Your task to perform on an android device: open app "DoorDash - Dasher" Image 0: 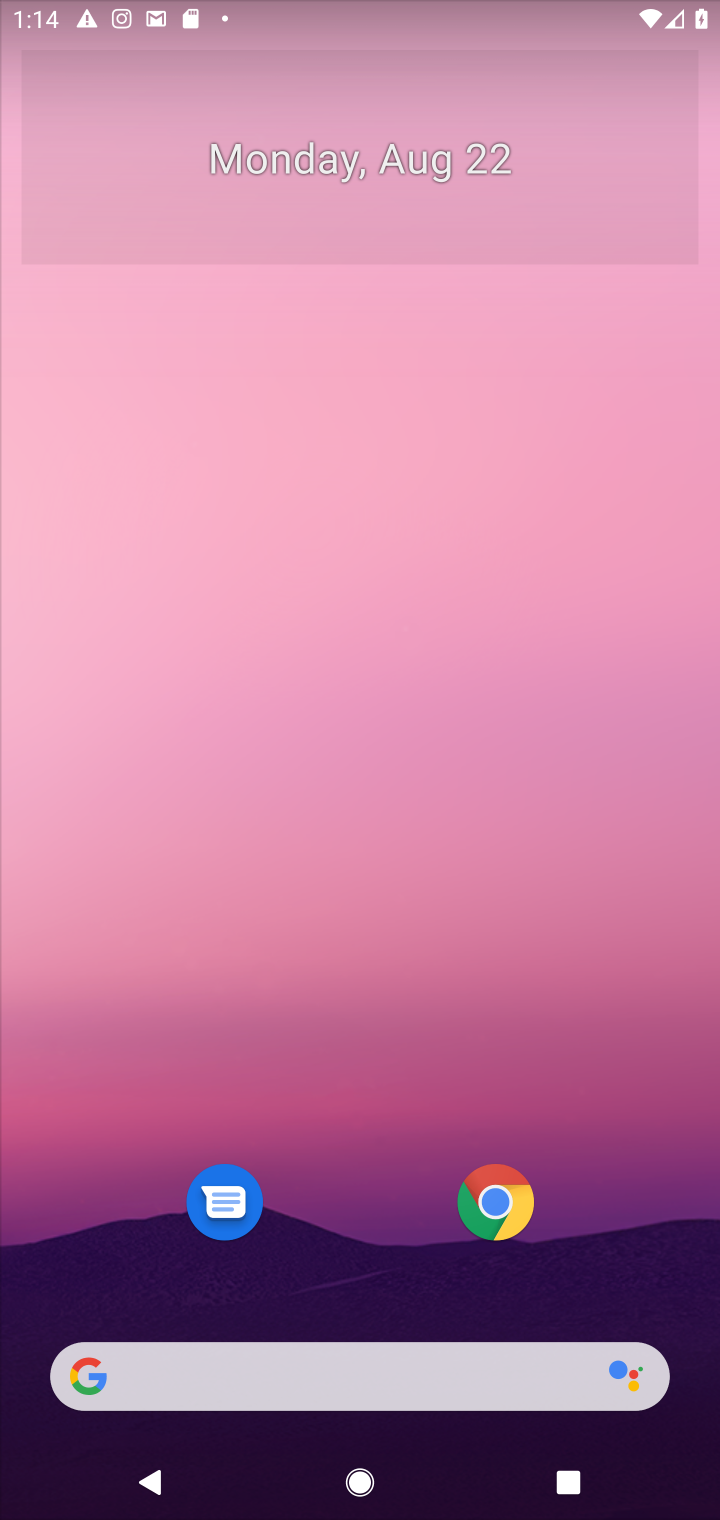
Step 0: drag from (375, 1264) to (375, 203)
Your task to perform on an android device: open app "DoorDash - Dasher" Image 1: 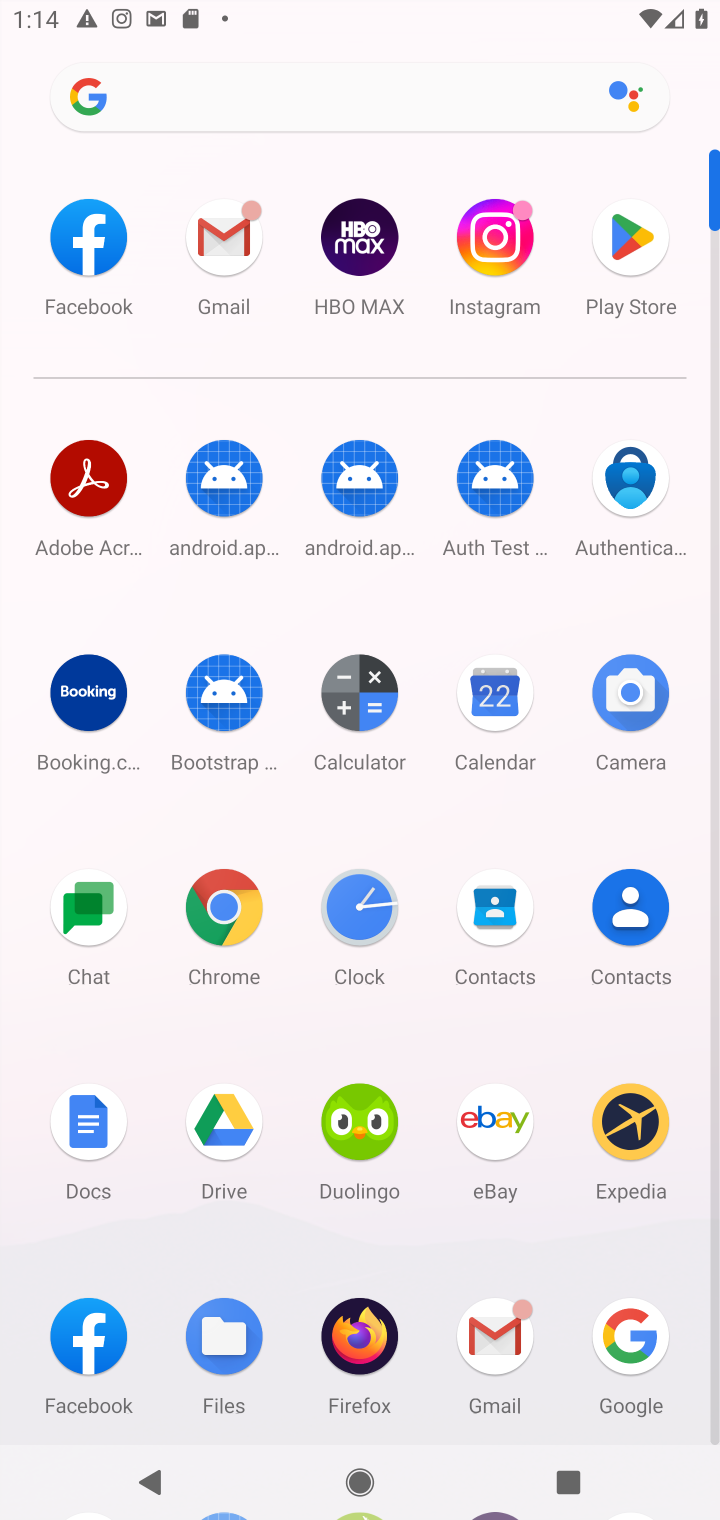
Step 1: click (629, 247)
Your task to perform on an android device: open app "DoorDash - Dasher" Image 2: 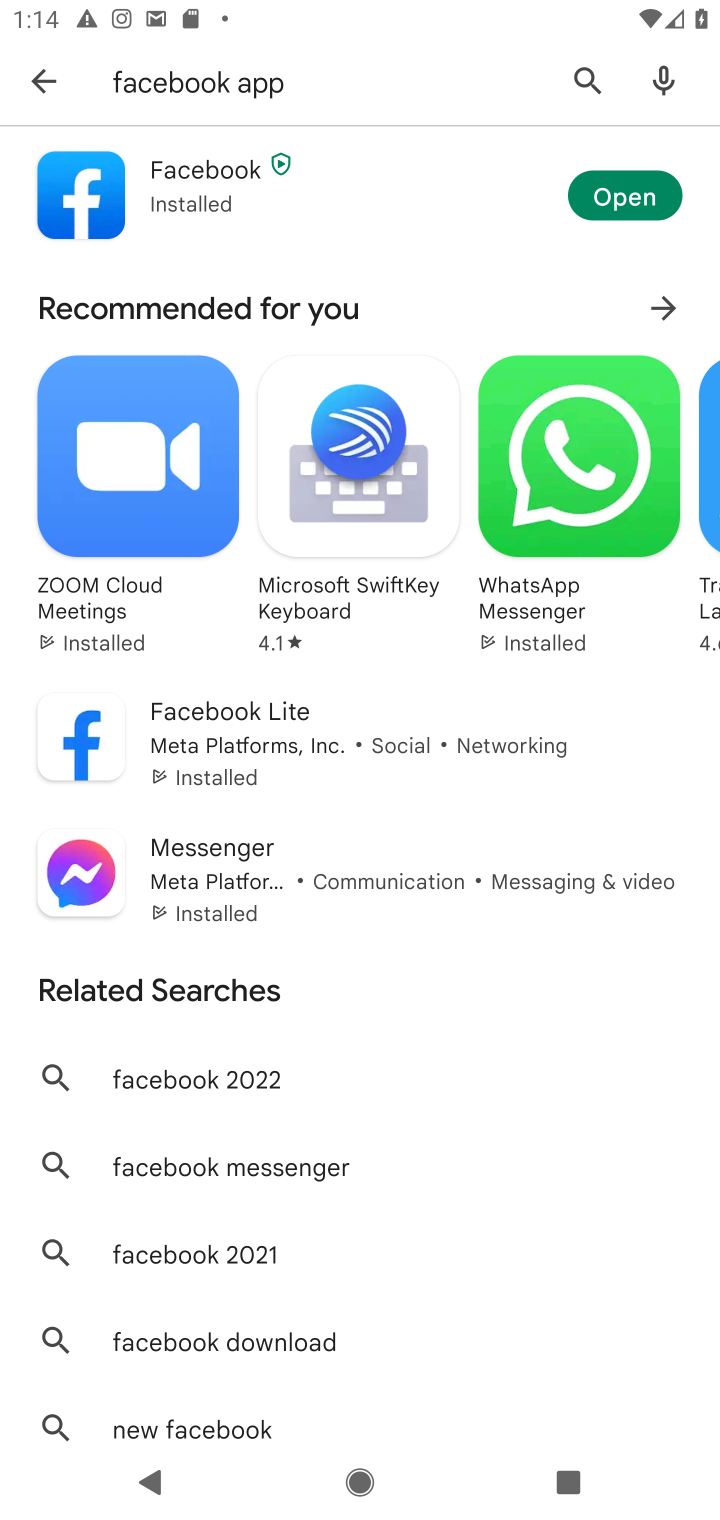
Step 2: click (582, 66)
Your task to perform on an android device: open app "DoorDash - Dasher" Image 3: 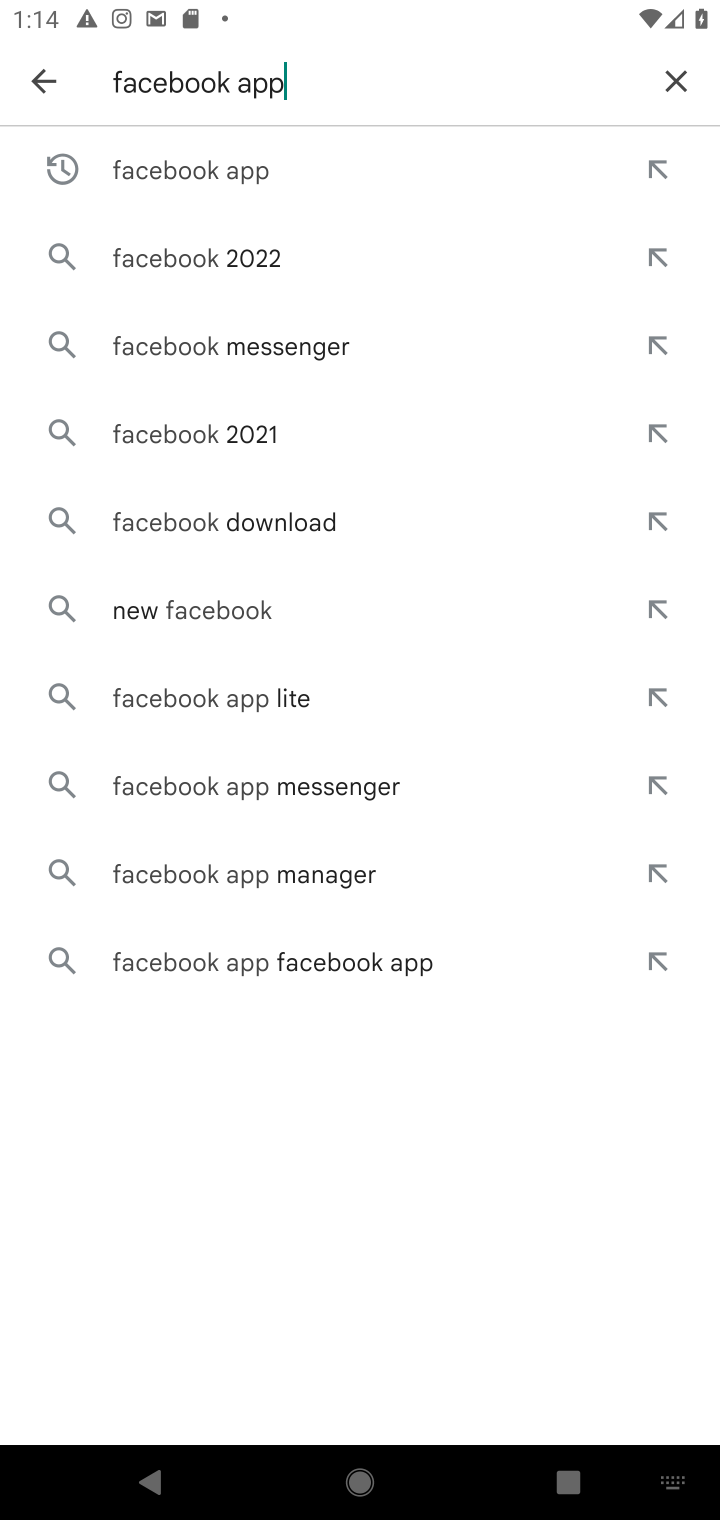
Step 3: click (680, 76)
Your task to perform on an android device: open app "DoorDash - Dasher" Image 4: 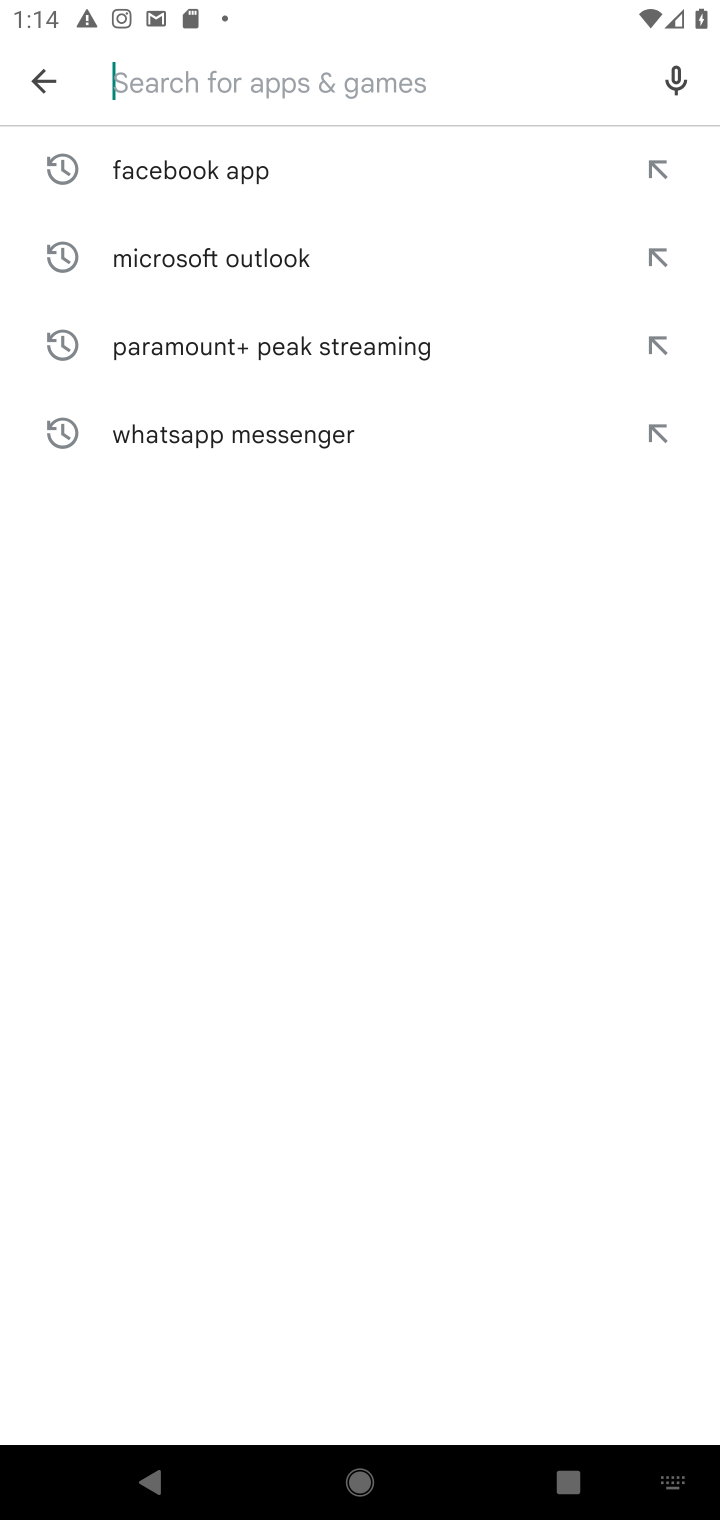
Step 4: type "DoorDash - Dasher"
Your task to perform on an android device: open app "DoorDash - Dasher" Image 5: 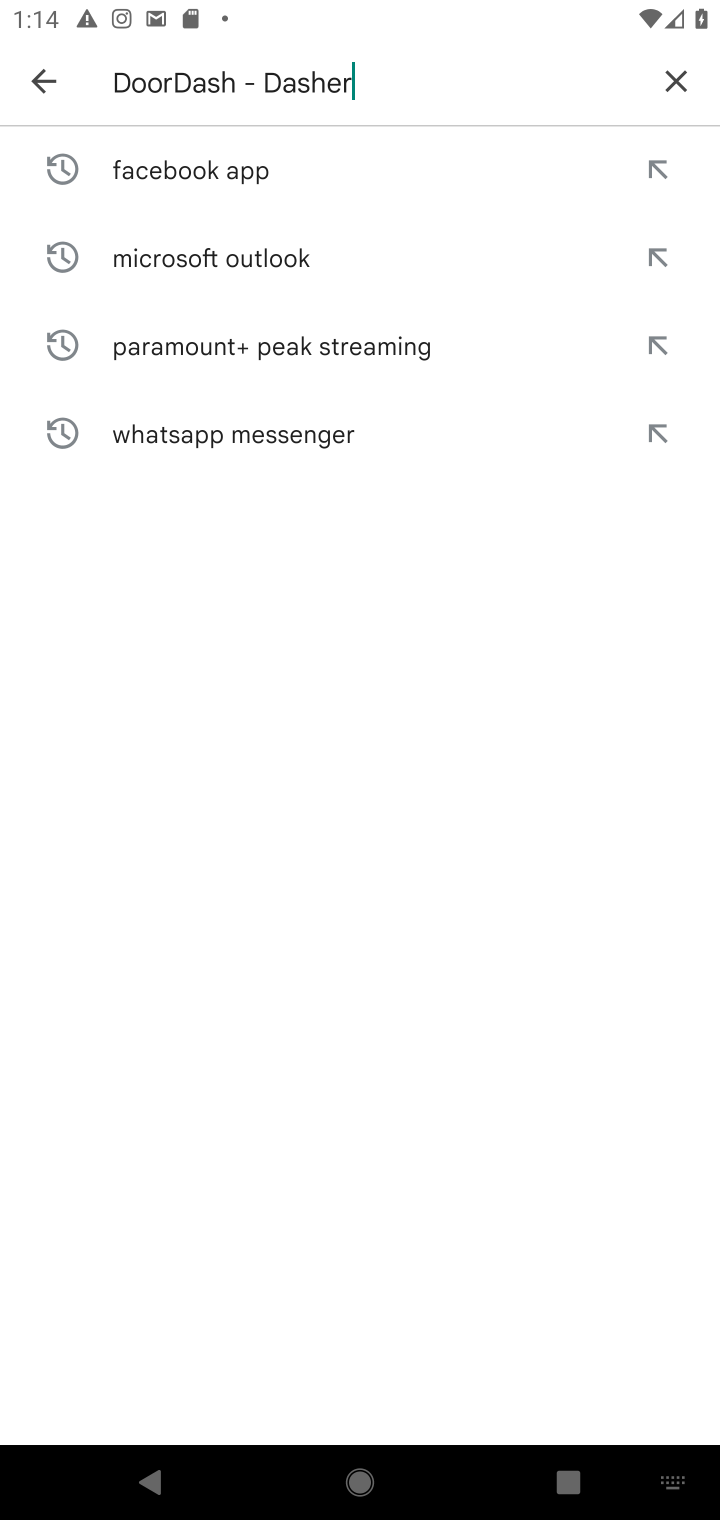
Step 5: type ""
Your task to perform on an android device: open app "DoorDash - Dasher" Image 6: 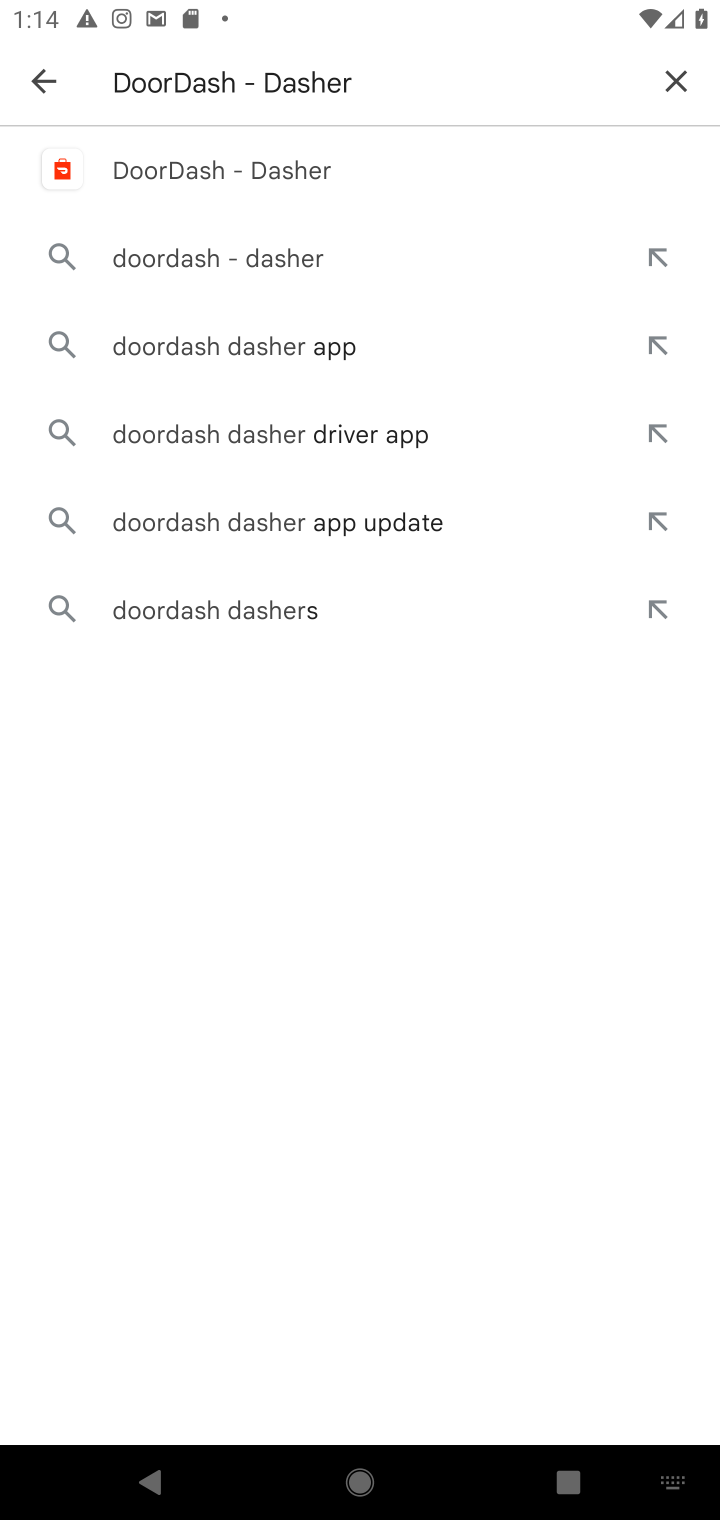
Step 6: click (207, 171)
Your task to perform on an android device: open app "DoorDash - Dasher" Image 7: 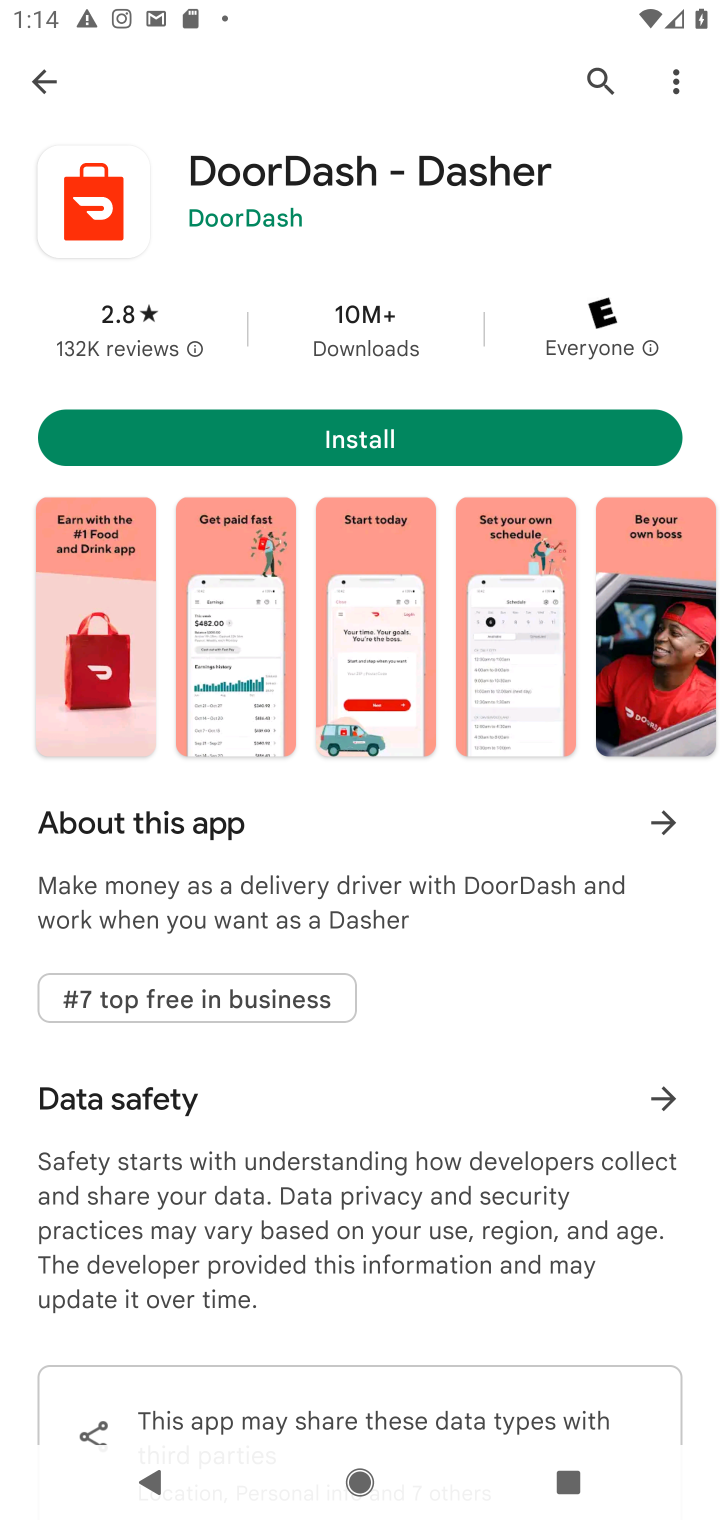
Step 7: task complete